Your task to perform on an android device: toggle data saver in the chrome app Image 0: 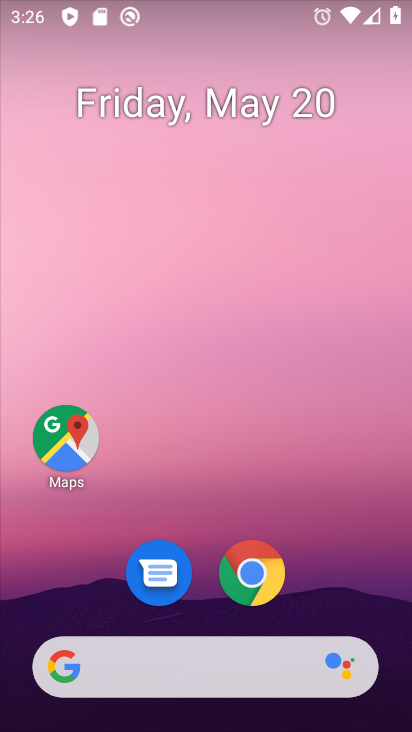
Step 0: click (257, 593)
Your task to perform on an android device: toggle data saver in the chrome app Image 1: 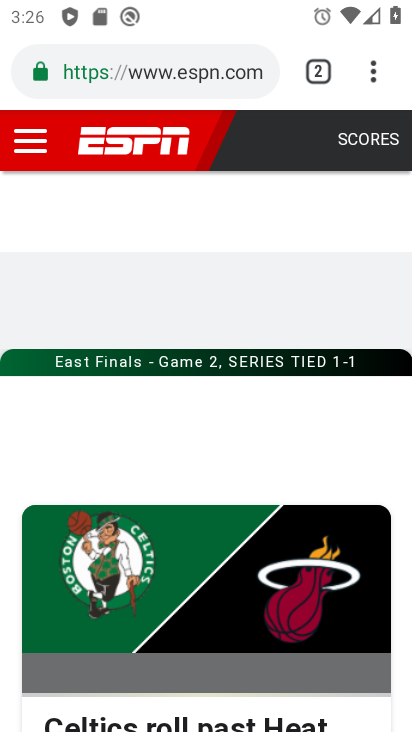
Step 1: click (372, 79)
Your task to perform on an android device: toggle data saver in the chrome app Image 2: 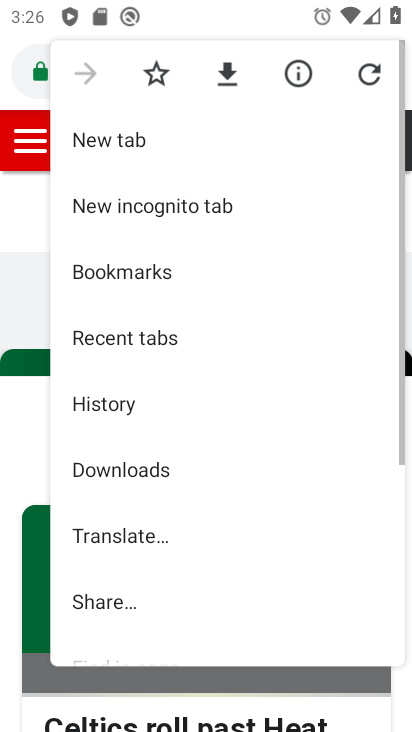
Step 2: drag from (222, 567) to (241, 178)
Your task to perform on an android device: toggle data saver in the chrome app Image 3: 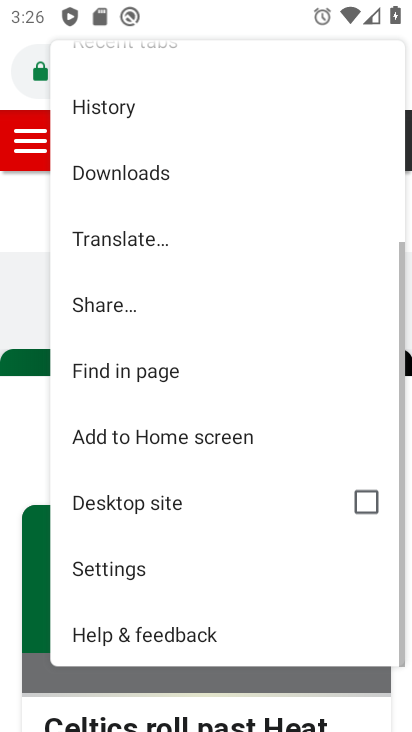
Step 3: click (137, 561)
Your task to perform on an android device: toggle data saver in the chrome app Image 4: 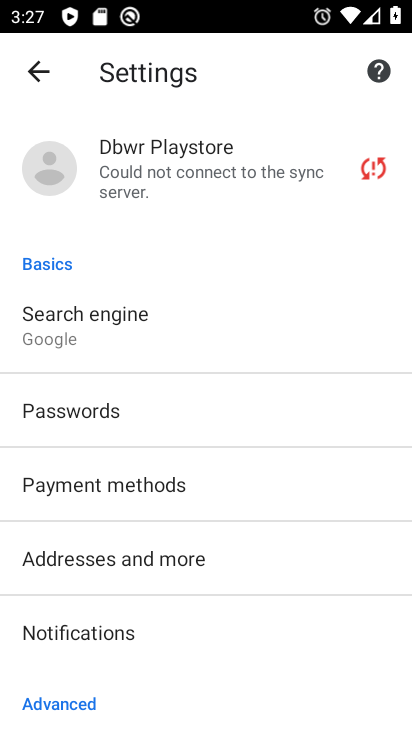
Step 4: drag from (182, 595) to (179, 146)
Your task to perform on an android device: toggle data saver in the chrome app Image 5: 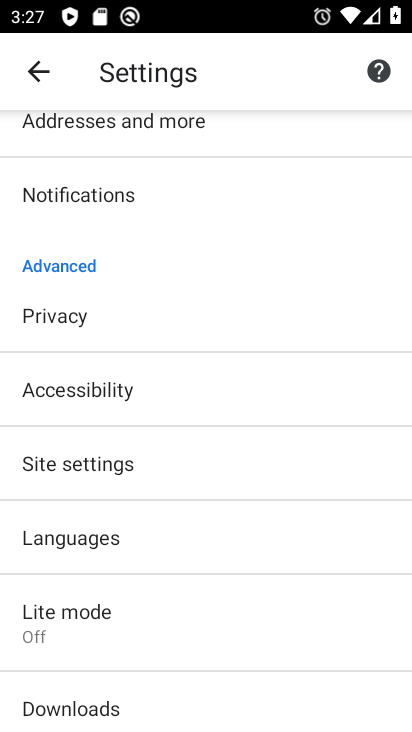
Step 5: click (138, 636)
Your task to perform on an android device: toggle data saver in the chrome app Image 6: 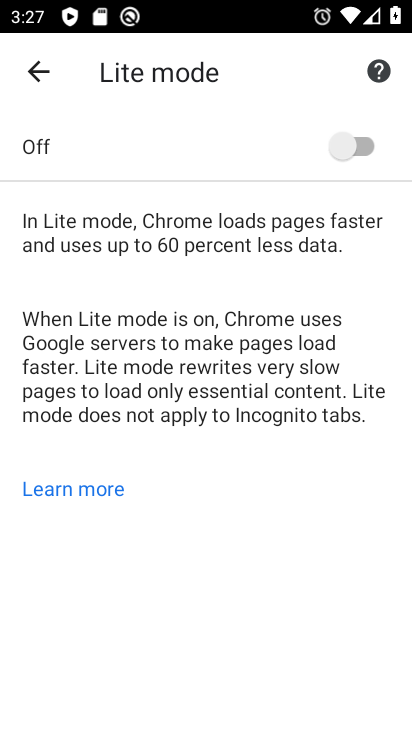
Step 6: click (346, 138)
Your task to perform on an android device: toggle data saver in the chrome app Image 7: 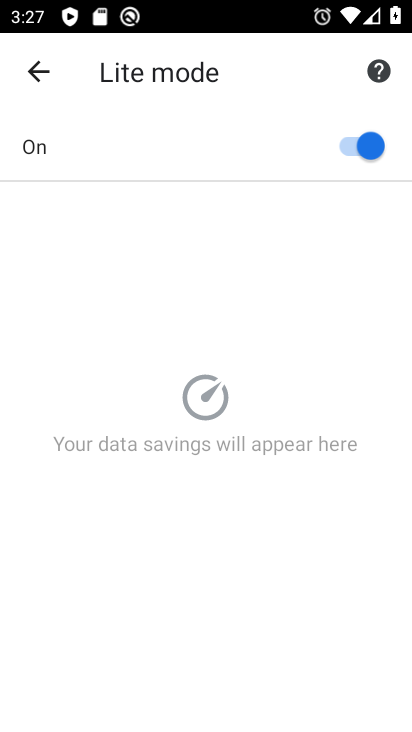
Step 7: task complete